Your task to perform on an android device: Open accessibility settings Image 0: 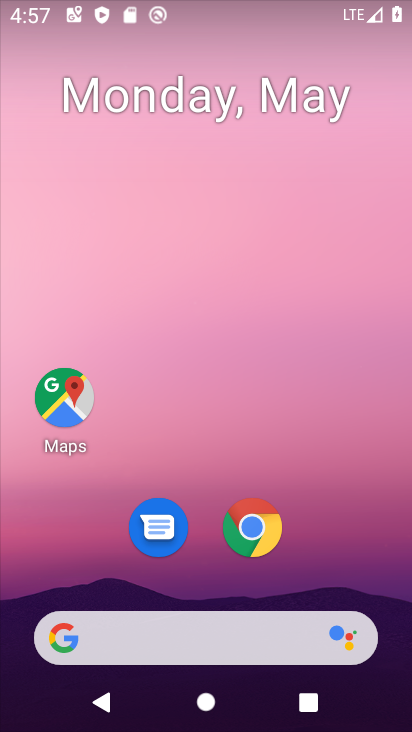
Step 0: drag from (337, 386) to (287, 18)
Your task to perform on an android device: Open accessibility settings Image 1: 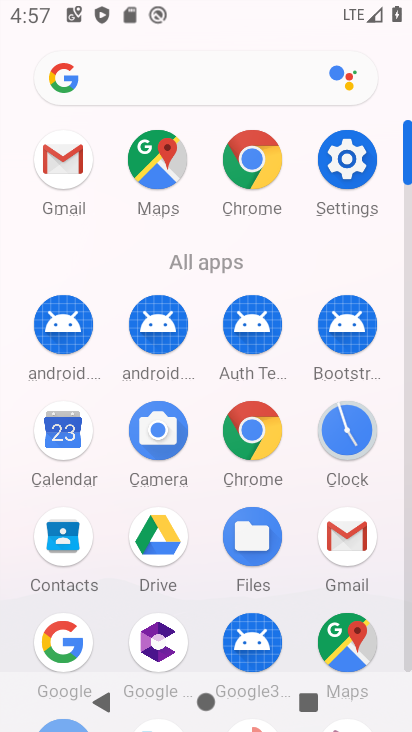
Step 1: click (339, 175)
Your task to perform on an android device: Open accessibility settings Image 2: 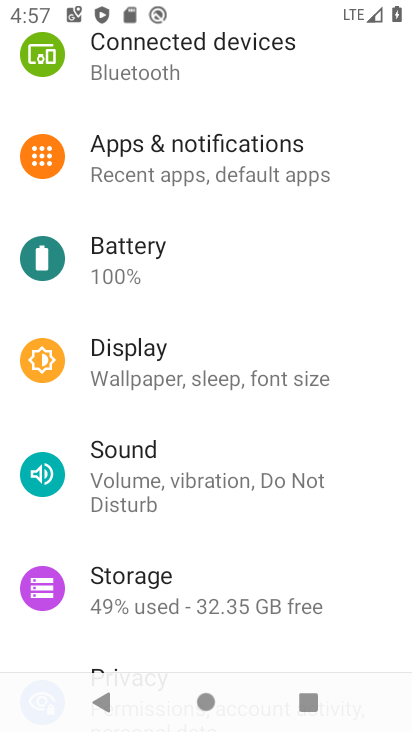
Step 2: drag from (361, 643) to (311, 196)
Your task to perform on an android device: Open accessibility settings Image 3: 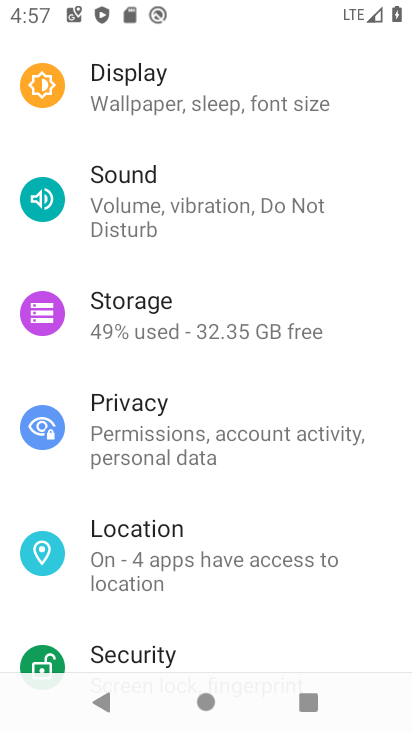
Step 3: drag from (368, 577) to (342, 212)
Your task to perform on an android device: Open accessibility settings Image 4: 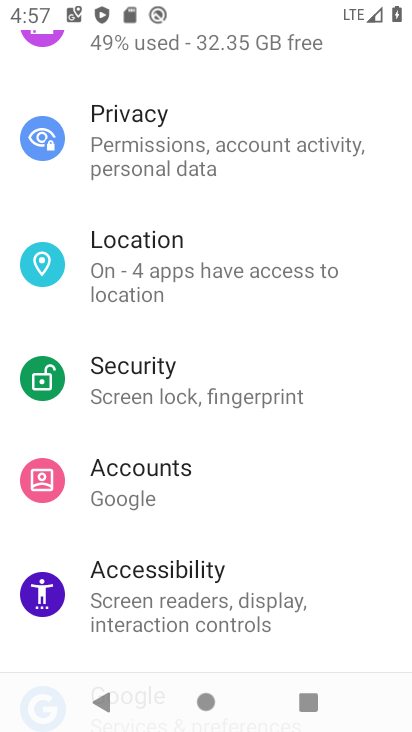
Step 4: click (155, 604)
Your task to perform on an android device: Open accessibility settings Image 5: 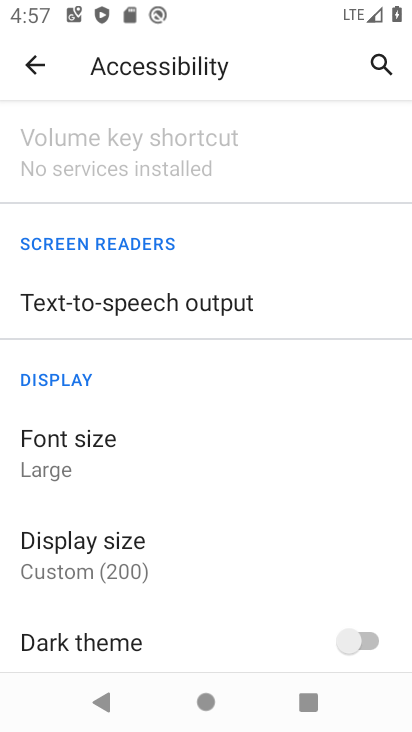
Step 5: task complete